Your task to perform on an android device: make emails show in primary in the gmail app Image 0: 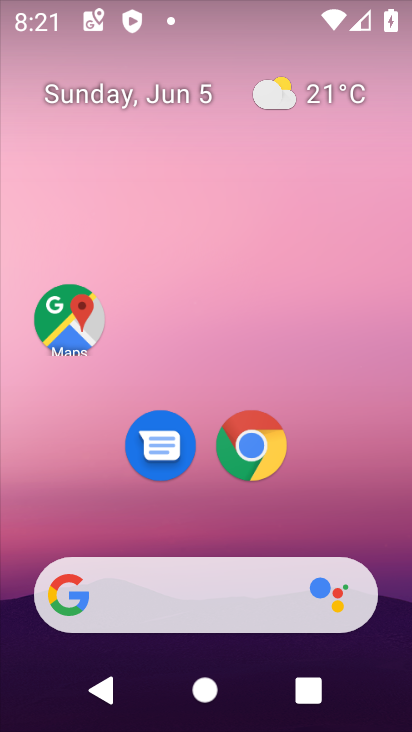
Step 0: press home button
Your task to perform on an android device: make emails show in primary in the gmail app Image 1: 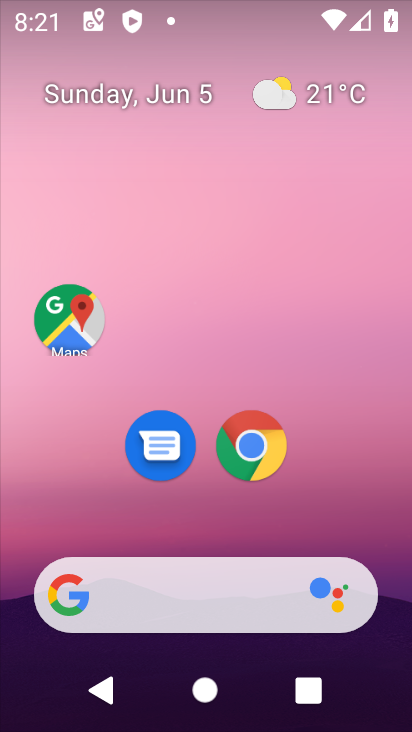
Step 1: drag from (264, 530) to (216, 50)
Your task to perform on an android device: make emails show in primary in the gmail app Image 2: 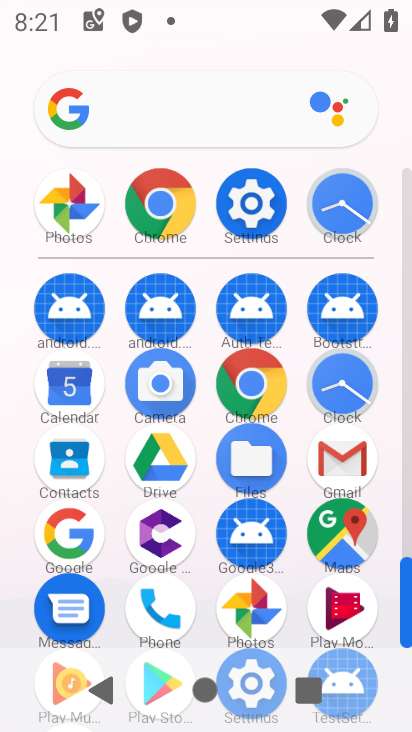
Step 2: click (350, 454)
Your task to perform on an android device: make emails show in primary in the gmail app Image 3: 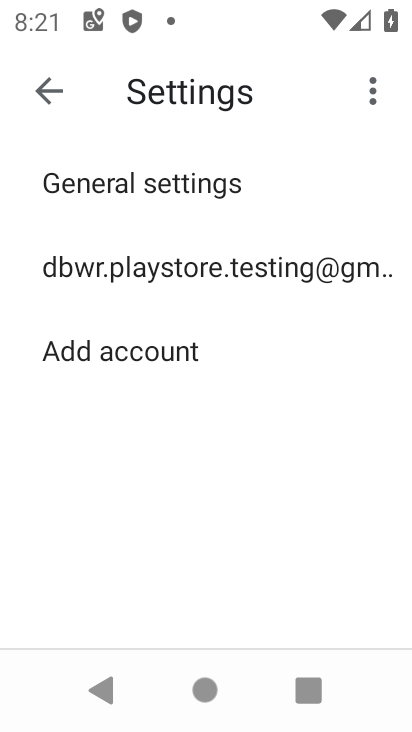
Step 3: click (177, 269)
Your task to perform on an android device: make emails show in primary in the gmail app Image 4: 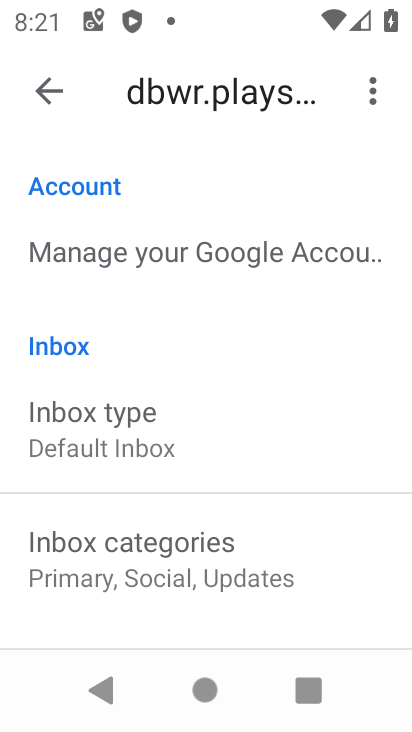
Step 4: click (137, 545)
Your task to perform on an android device: make emails show in primary in the gmail app Image 5: 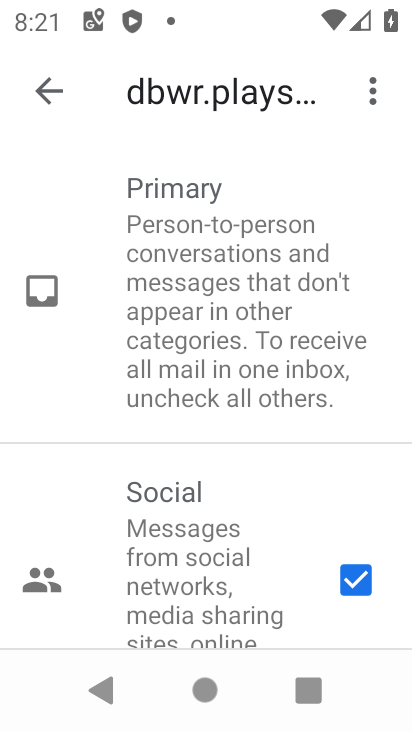
Step 5: click (367, 580)
Your task to perform on an android device: make emails show in primary in the gmail app Image 6: 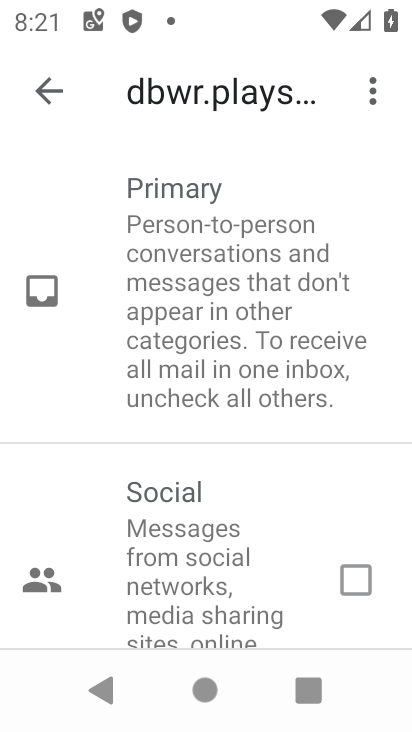
Step 6: drag from (311, 531) to (315, 275)
Your task to perform on an android device: make emails show in primary in the gmail app Image 7: 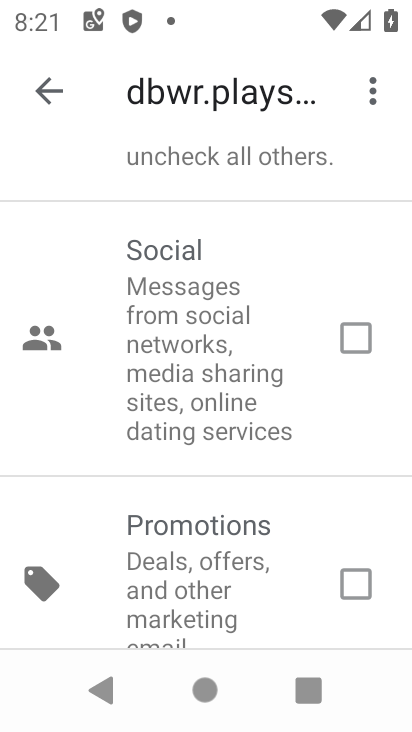
Step 7: drag from (306, 515) to (273, 111)
Your task to perform on an android device: make emails show in primary in the gmail app Image 8: 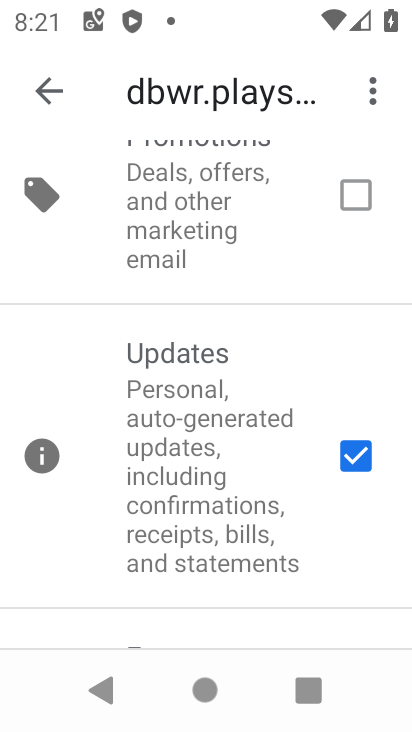
Step 8: click (362, 456)
Your task to perform on an android device: make emails show in primary in the gmail app Image 9: 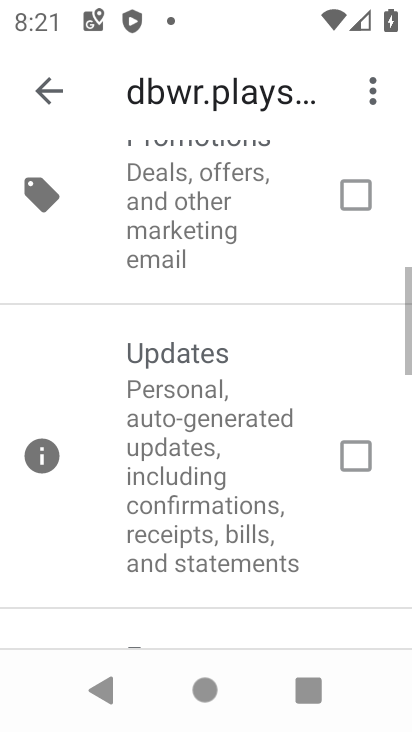
Step 9: task complete